Your task to perform on an android device: see creations saved in the google photos Image 0: 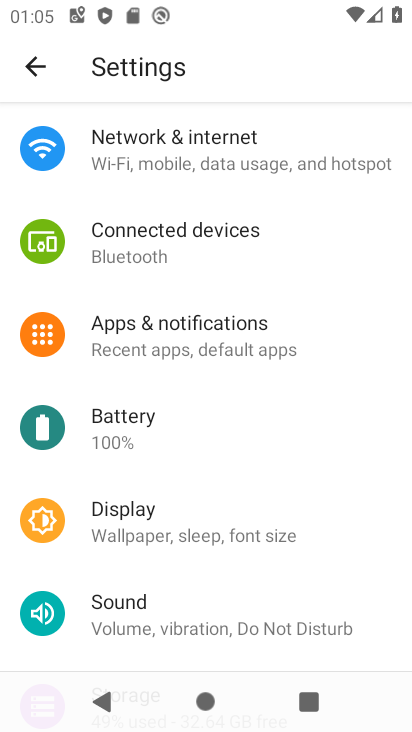
Step 0: press home button
Your task to perform on an android device: see creations saved in the google photos Image 1: 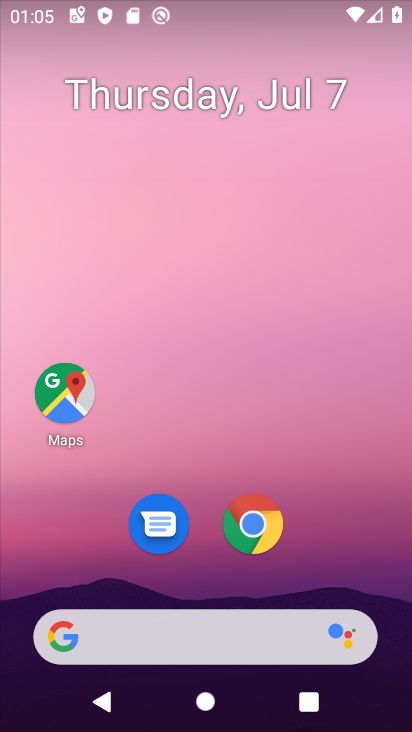
Step 1: drag from (329, 547) to (365, 75)
Your task to perform on an android device: see creations saved in the google photos Image 2: 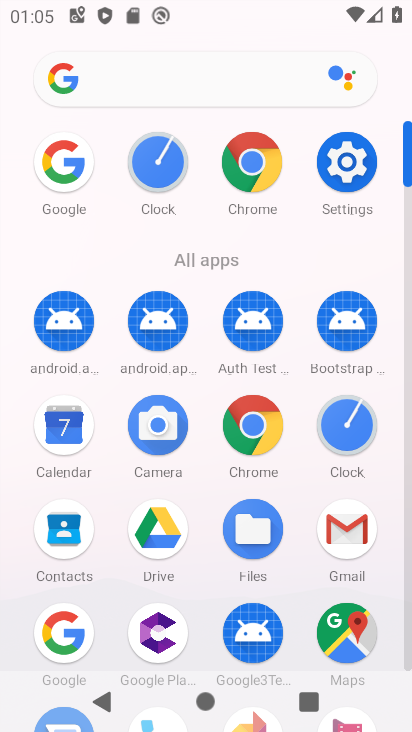
Step 2: drag from (296, 487) to (317, 180)
Your task to perform on an android device: see creations saved in the google photos Image 3: 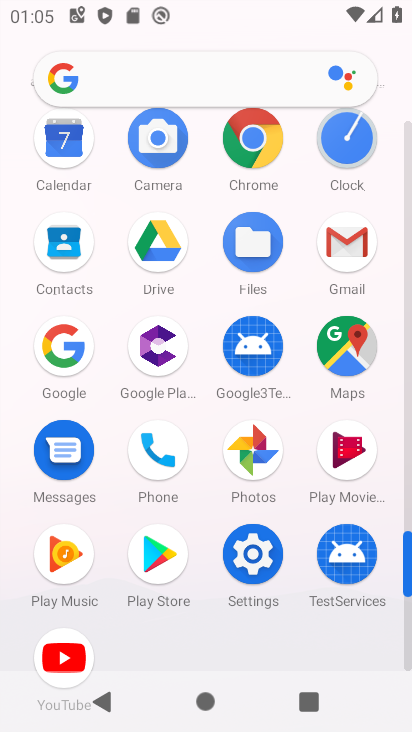
Step 3: click (258, 435)
Your task to perform on an android device: see creations saved in the google photos Image 4: 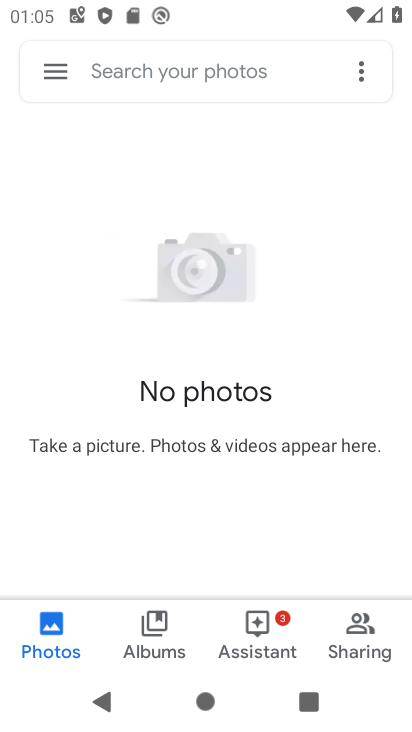
Step 4: click (116, 47)
Your task to perform on an android device: see creations saved in the google photos Image 5: 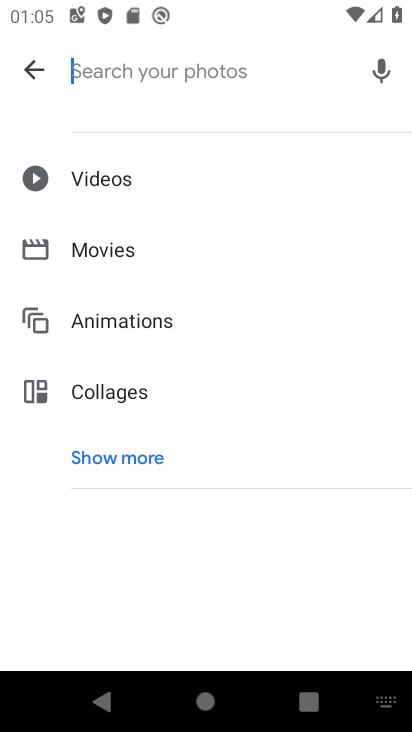
Step 5: click (139, 453)
Your task to perform on an android device: see creations saved in the google photos Image 6: 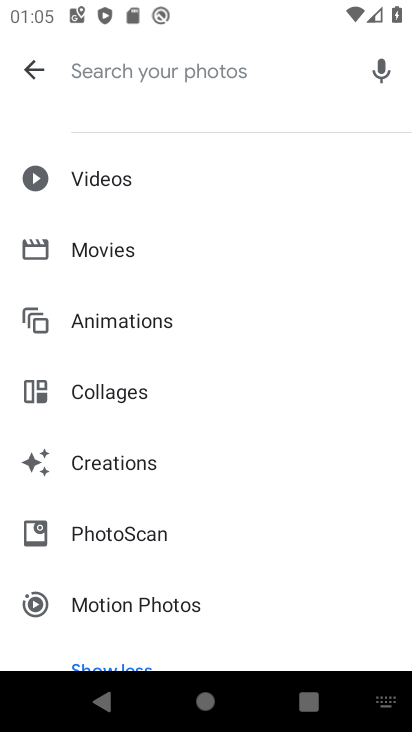
Step 6: click (126, 451)
Your task to perform on an android device: see creations saved in the google photos Image 7: 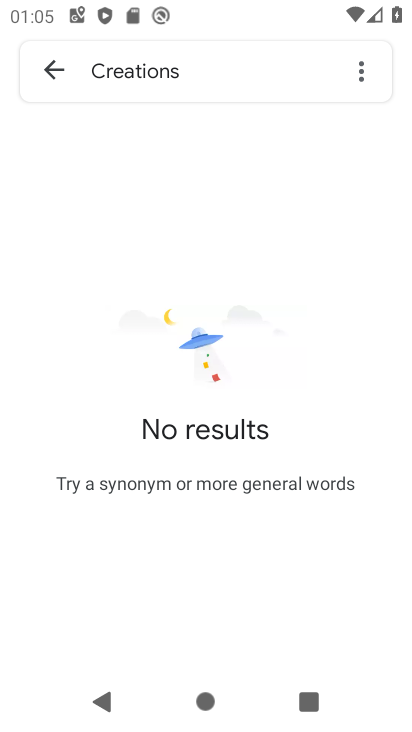
Step 7: task complete